Your task to perform on an android device: check battery use Image 0: 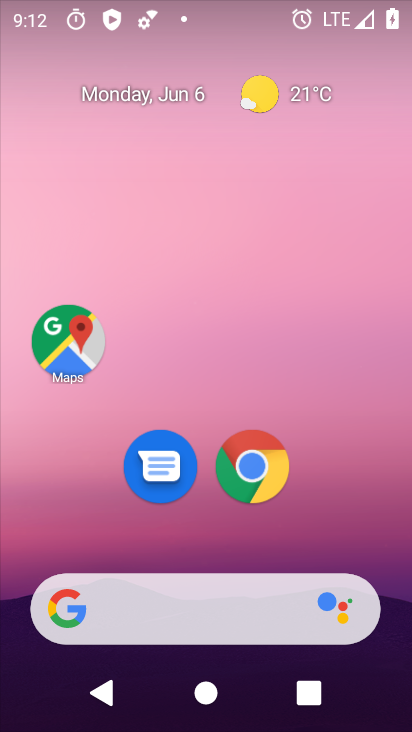
Step 0: drag from (224, 530) to (217, 8)
Your task to perform on an android device: check battery use Image 1: 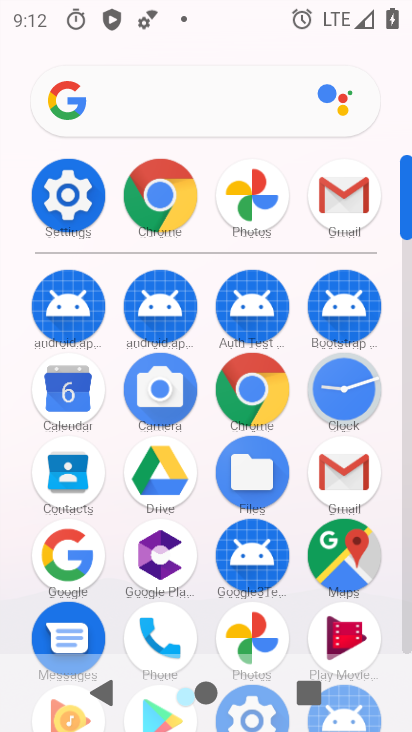
Step 1: click (46, 188)
Your task to perform on an android device: check battery use Image 2: 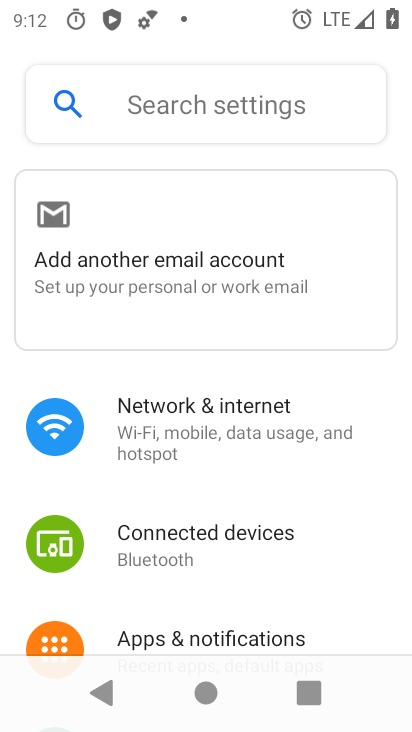
Step 2: drag from (178, 591) to (258, 7)
Your task to perform on an android device: check battery use Image 3: 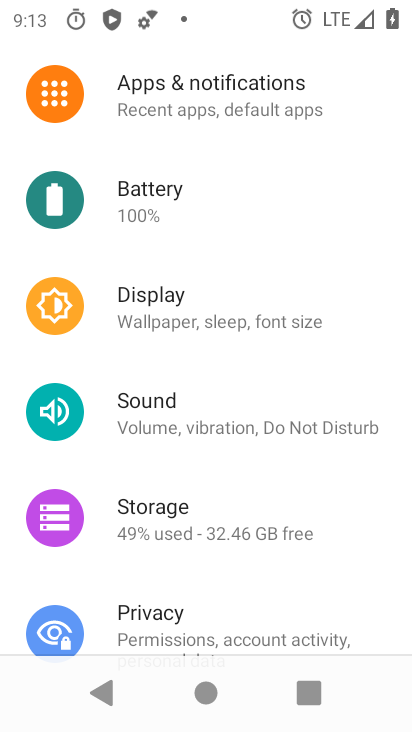
Step 3: click (206, 204)
Your task to perform on an android device: check battery use Image 4: 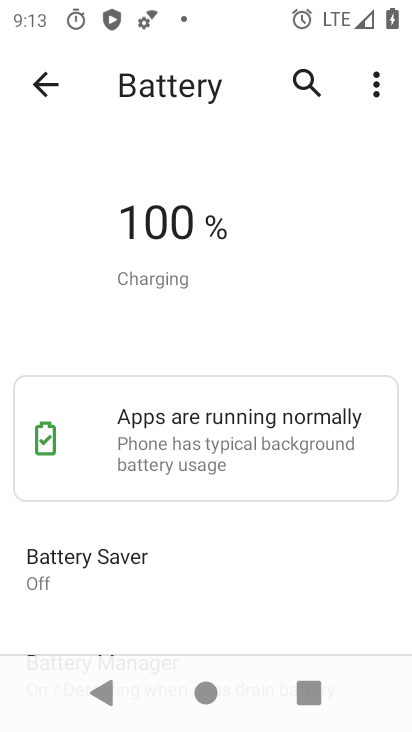
Step 4: click (389, 82)
Your task to perform on an android device: check battery use Image 5: 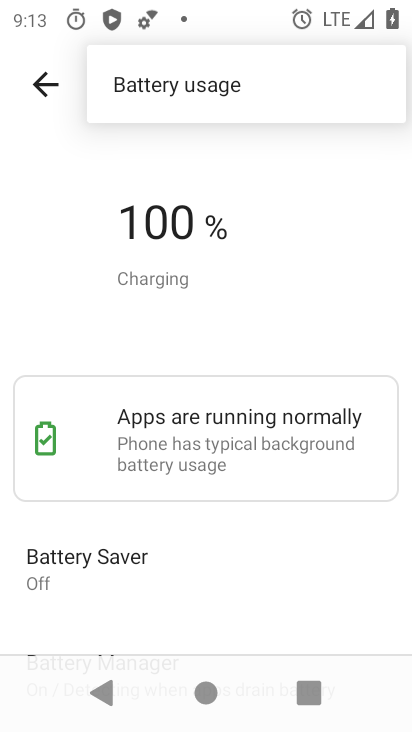
Step 5: click (218, 96)
Your task to perform on an android device: check battery use Image 6: 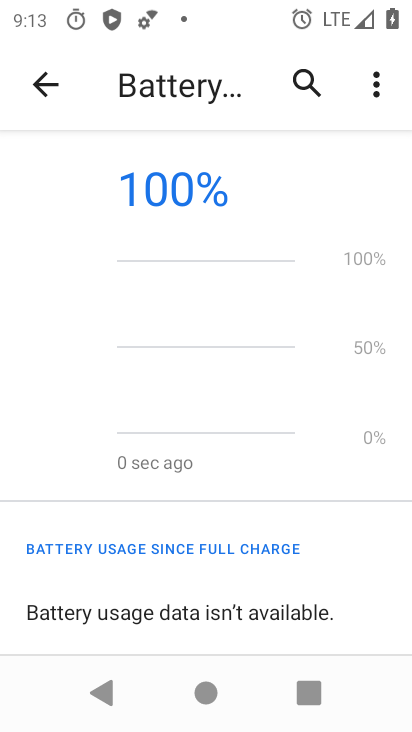
Step 6: task complete